Your task to perform on an android device: Go to Yahoo.com Image 0: 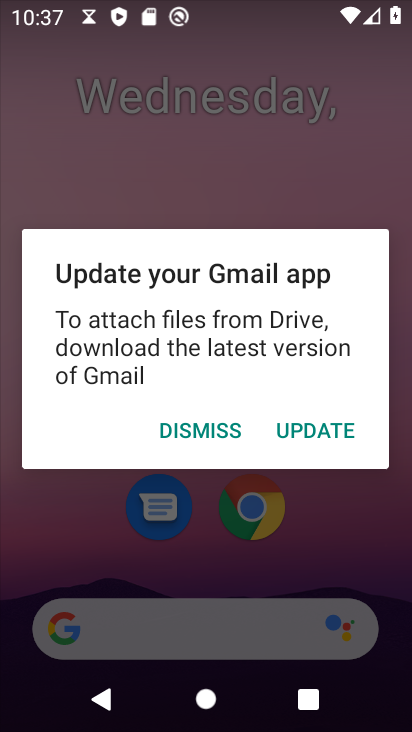
Step 0: press home button
Your task to perform on an android device: Go to Yahoo.com Image 1: 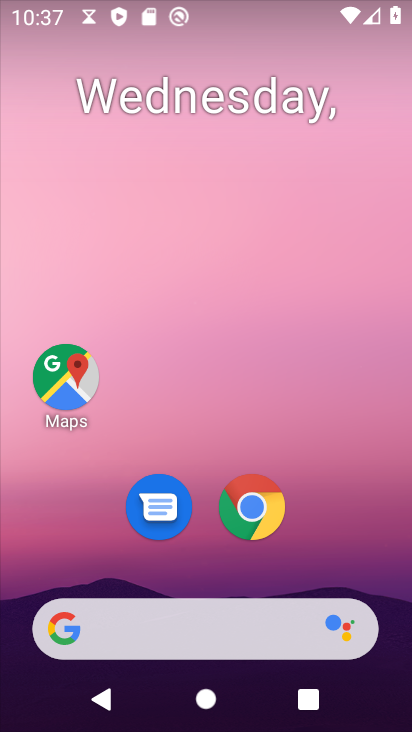
Step 1: drag from (253, 670) to (259, 229)
Your task to perform on an android device: Go to Yahoo.com Image 2: 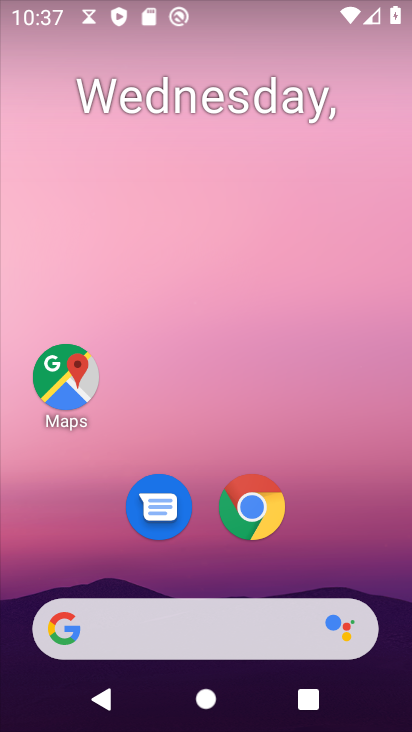
Step 2: drag from (251, 649) to (215, 294)
Your task to perform on an android device: Go to Yahoo.com Image 3: 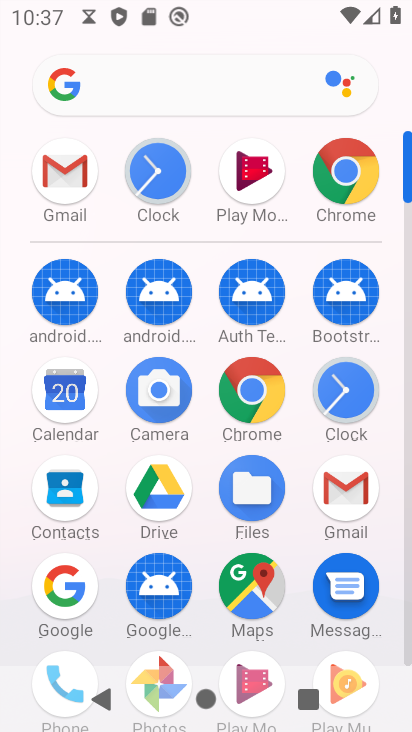
Step 3: click (243, 399)
Your task to perform on an android device: Go to Yahoo.com Image 4: 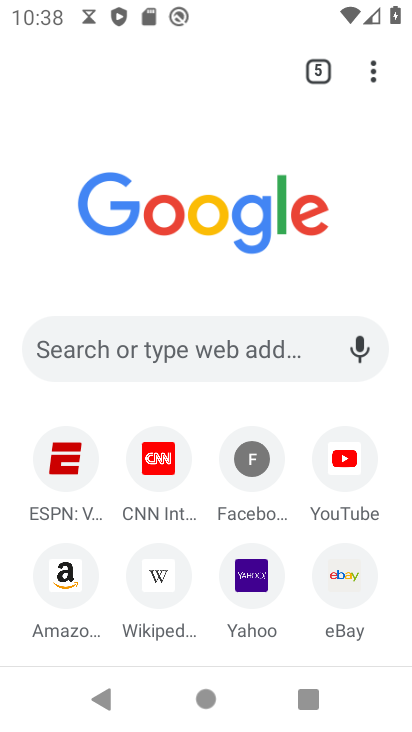
Step 4: click (241, 572)
Your task to perform on an android device: Go to Yahoo.com Image 5: 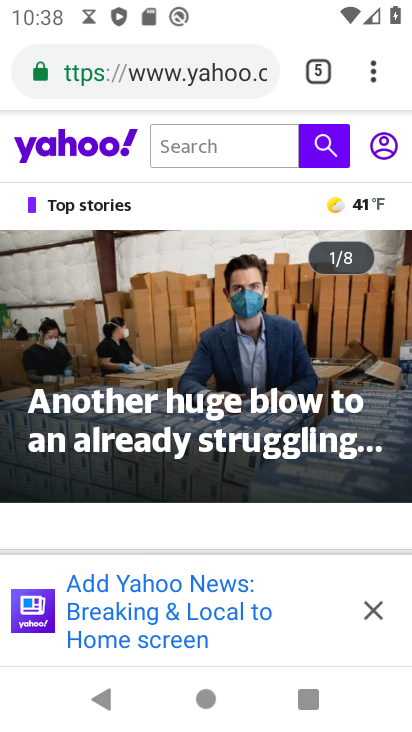
Step 5: task complete